Your task to perform on an android device: Turn on the flashlight Image 0: 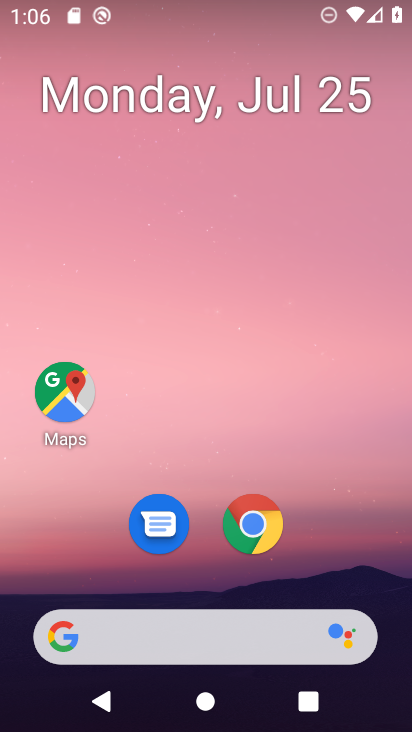
Step 0: press home button
Your task to perform on an android device: Turn on the flashlight Image 1: 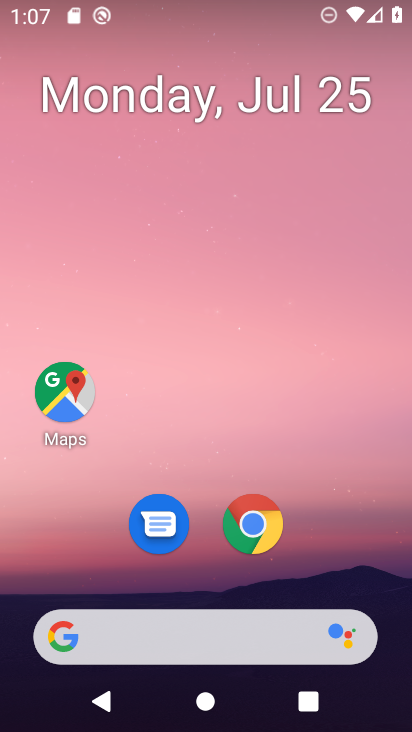
Step 1: task complete